Your task to perform on an android device: Open network settings Image 0: 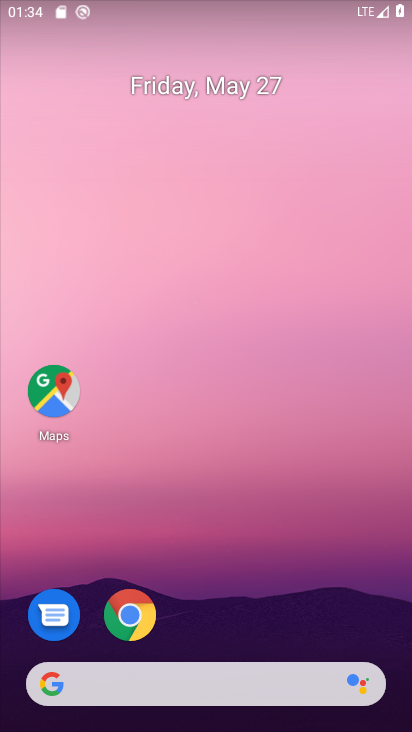
Step 0: drag from (357, 611) to (363, 218)
Your task to perform on an android device: Open network settings Image 1: 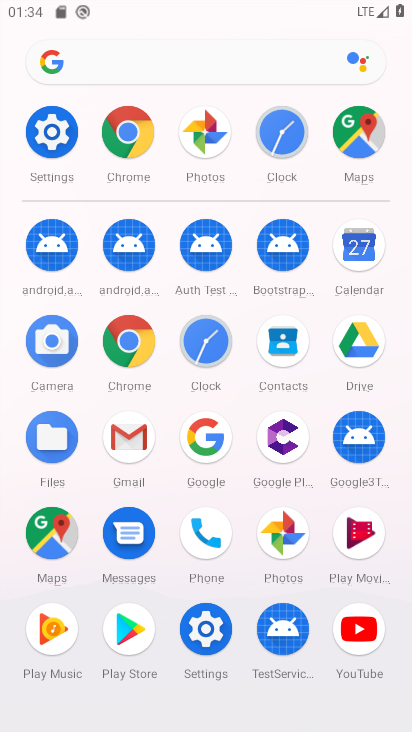
Step 1: click (215, 649)
Your task to perform on an android device: Open network settings Image 2: 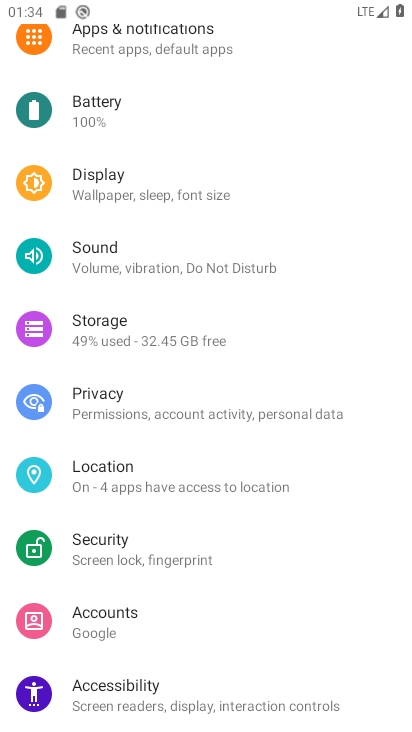
Step 2: drag from (336, 576) to (337, 463)
Your task to perform on an android device: Open network settings Image 3: 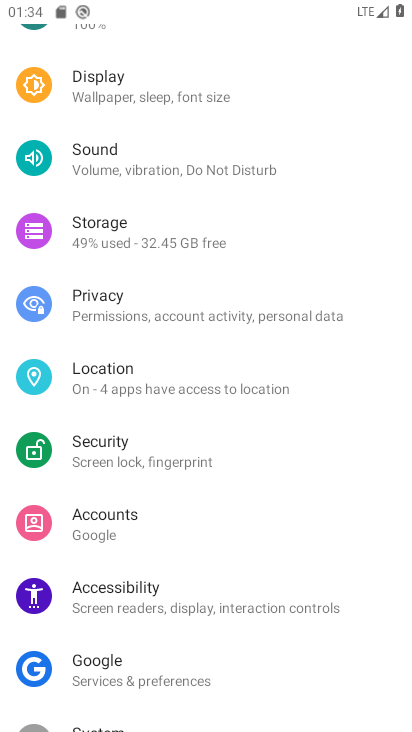
Step 3: drag from (361, 628) to (343, 483)
Your task to perform on an android device: Open network settings Image 4: 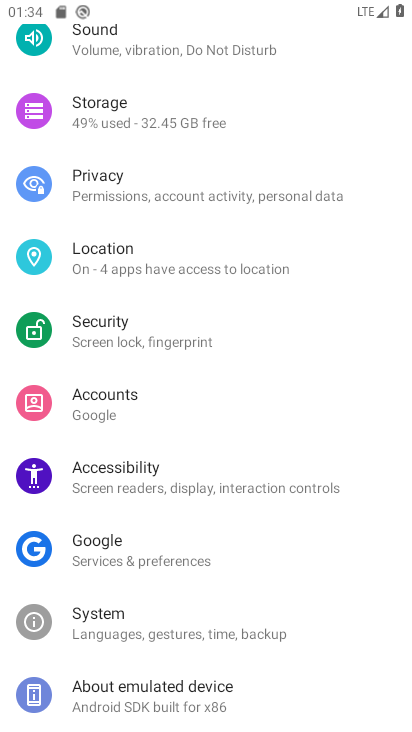
Step 4: drag from (340, 610) to (323, 463)
Your task to perform on an android device: Open network settings Image 5: 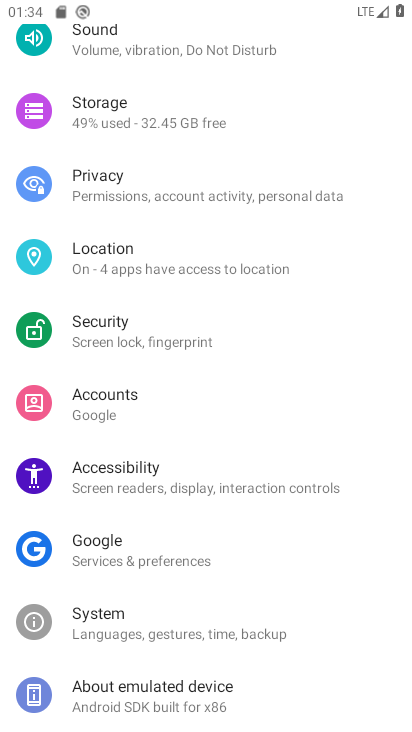
Step 5: drag from (337, 400) to (325, 492)
Your task to perform on an android device: Open network settings Image 6: 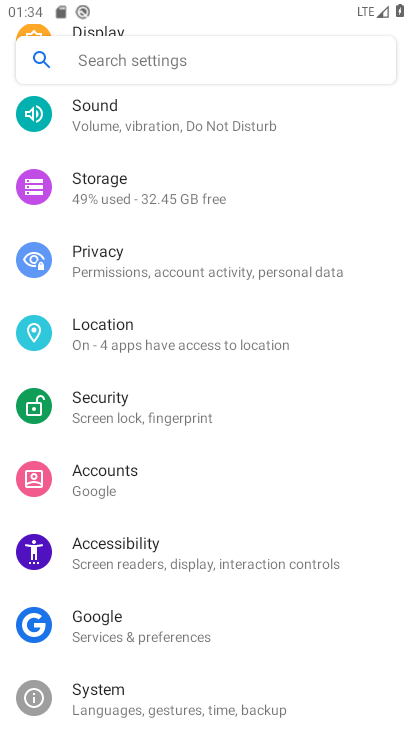
Step 6: drag from (334, 349) to (334, 444)
Your task to perform on an android device: Open network settings Image 7: 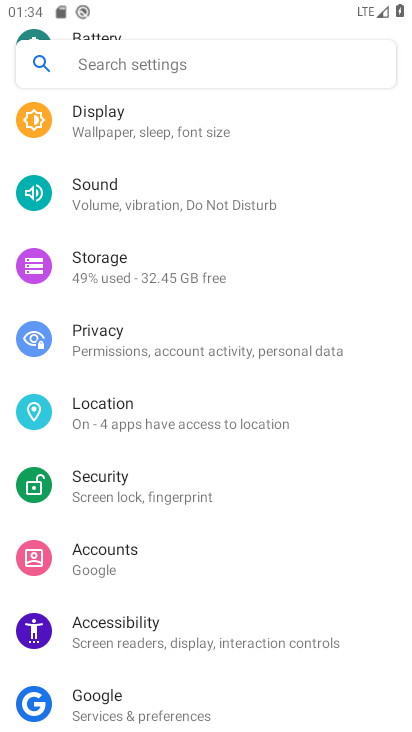
Step 7: drag from (343, 319) to (342, 414)
Your task to perform on an android device: Open network settings Image 8: 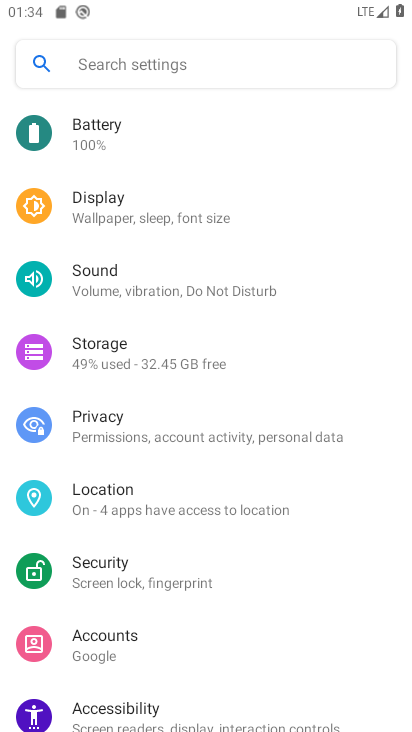
Step 8: drag from (344, 287) to (351, 361)
Your task to perform on an android device: Open network settings Image 9: 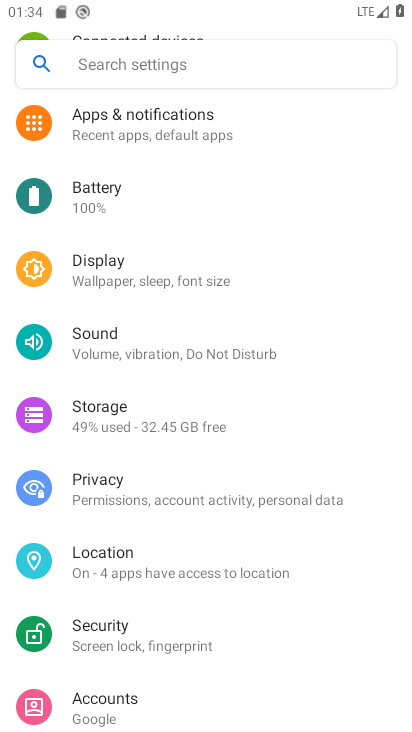
Step 9: drag from (337, 259) to (341, 327)
Your task to perform on an android device: Open network settings Image 10: 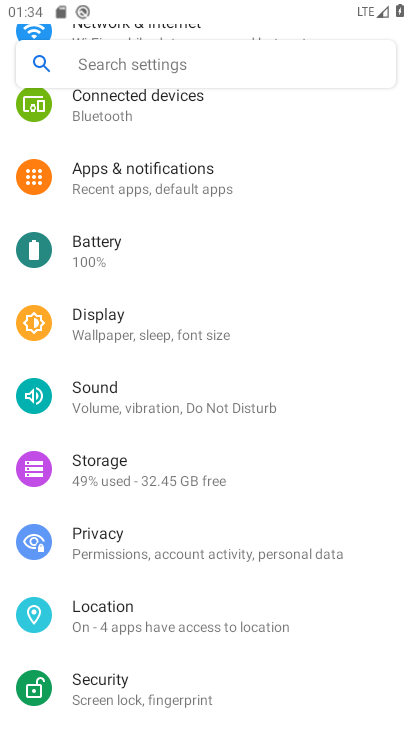
Step 10: drag from (338, 262) to (344, 321)
Your task to perform on an android device: Open network settings Image 11: 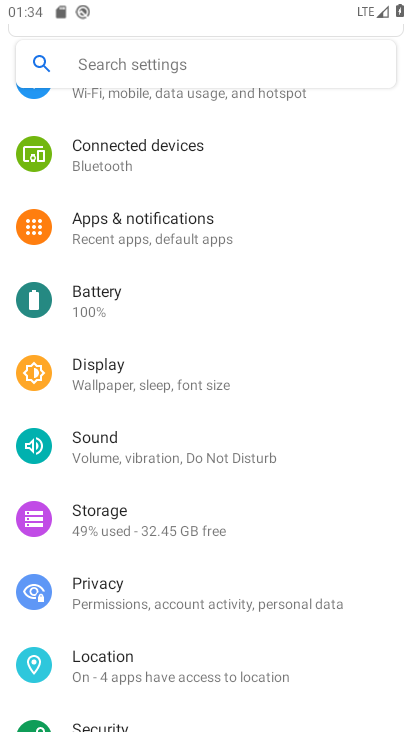
Step 11: drag from (350, 251) to (351, 321)
Your task to perform on an android device: Open network settings Image 12: 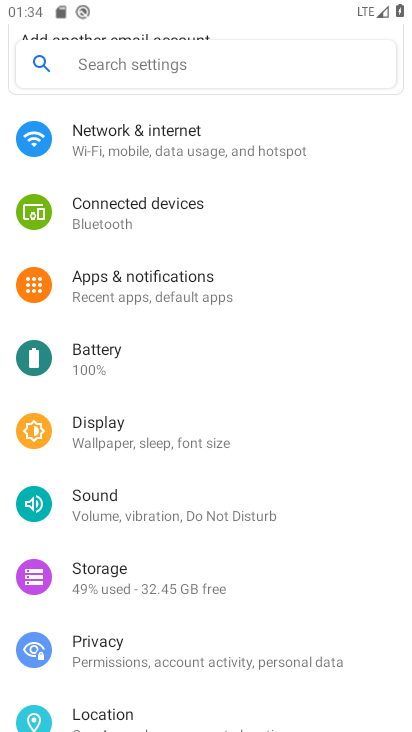
Step 12: drag from (349, 260) to (349, 323)
Your task to perform on an android device: Open network settings Image 13: 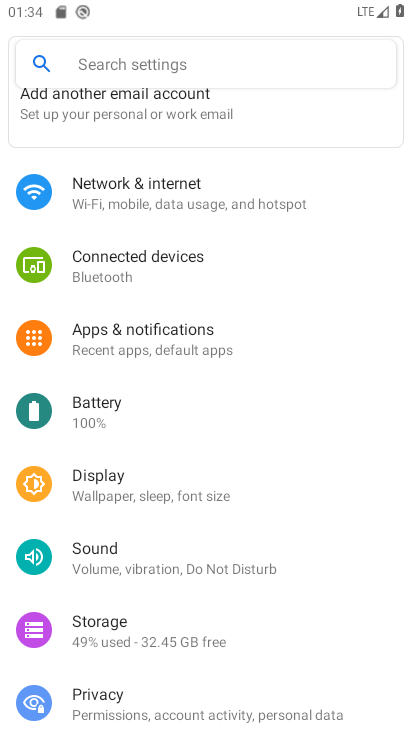
Step 13: drag from (354, 259) to (361, 333)
Your task to perform on an android device: Open network settings Image 14: 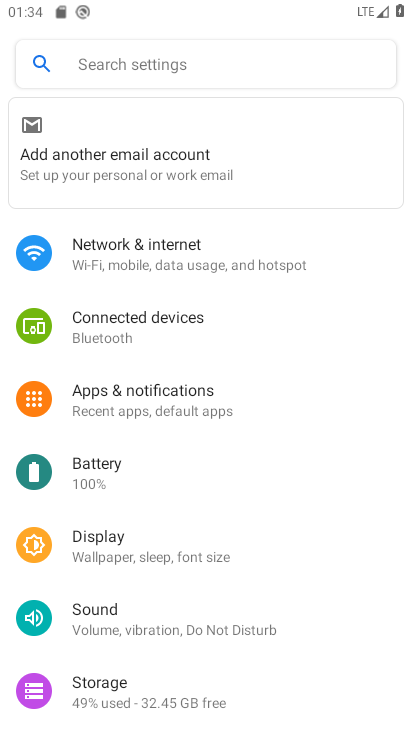
Step 14: drag from (348, 291) to (354, 381)
Your task to perform on an android device: Open network settings Image 15: 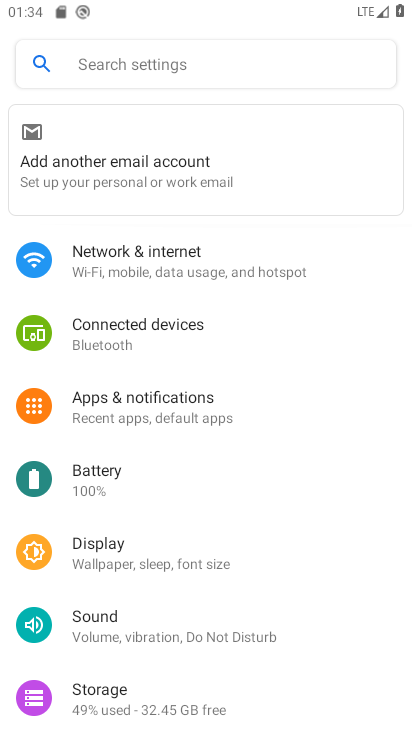
Step 15: click (292, 264)
Your task to perform on an android device: Open network settings Image 16: 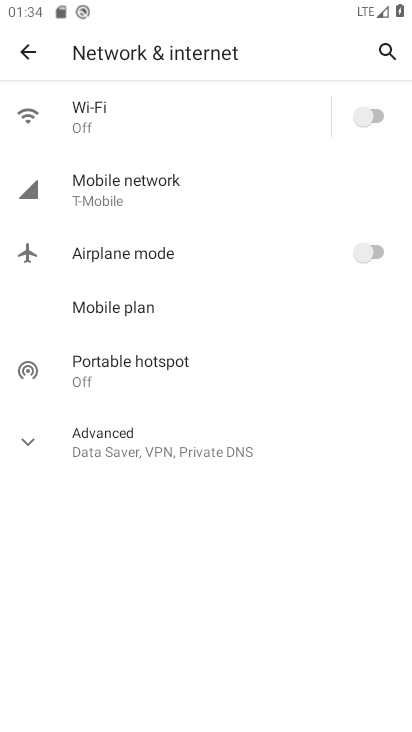
Step 16: task complete